Your task to perform on an android device: toggle pop-ups in chrome Image 0: 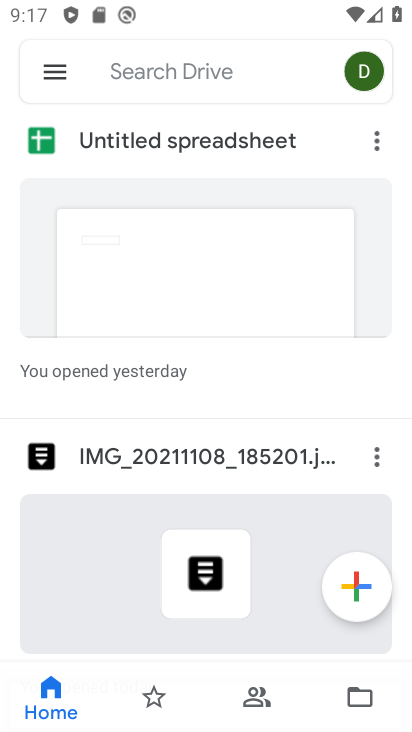
Step 0: press home button
Your task to perform on an android device: toggle pop-ups in chrome Image 1: 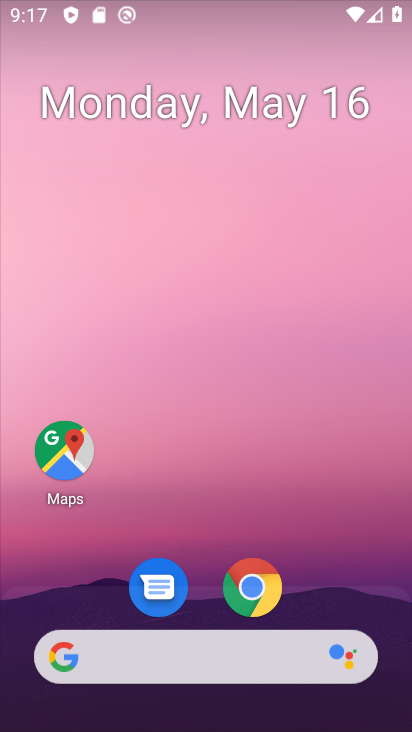
Step 1: click (262, 609)
Your task to perform on an android device: toggle pop-ups in chrome Image 2: 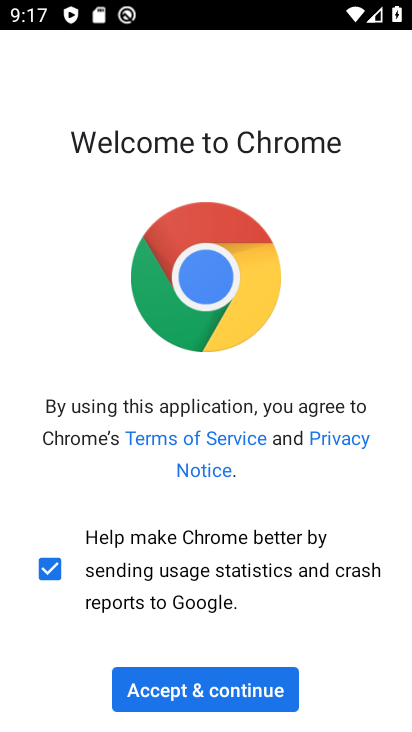
Step 2: click (208, 689)
Your task to perform on an android device: toggle pop-ups in chrome Image 3: 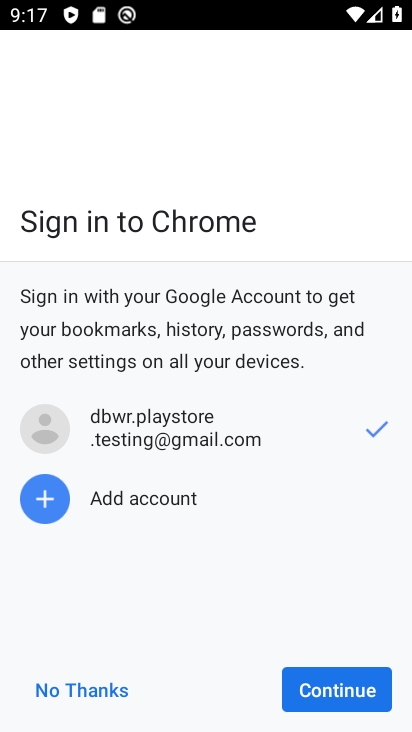
Step 3: click (303, 700)
Your task to perform on an android device: toggle pop-ups in chrome Image 4: 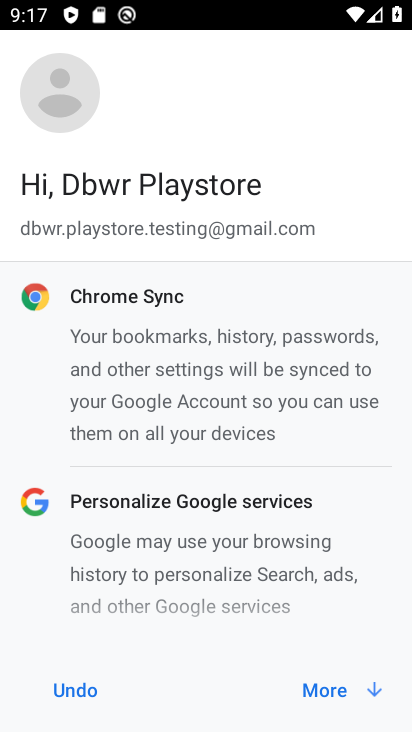
Step 4: click (331, 704)
Your task to perform on an android device: toggle pop-ups in chrome Image 5: 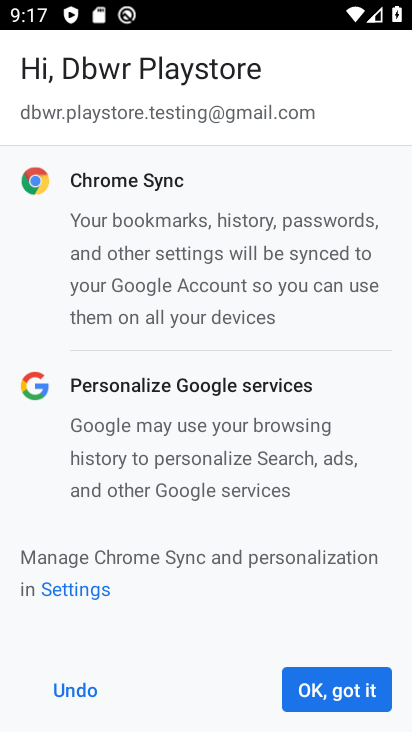
Step 5: click (325, 685)
Your task to perform on an android device: toggle pop-ups in chrome Image 6: 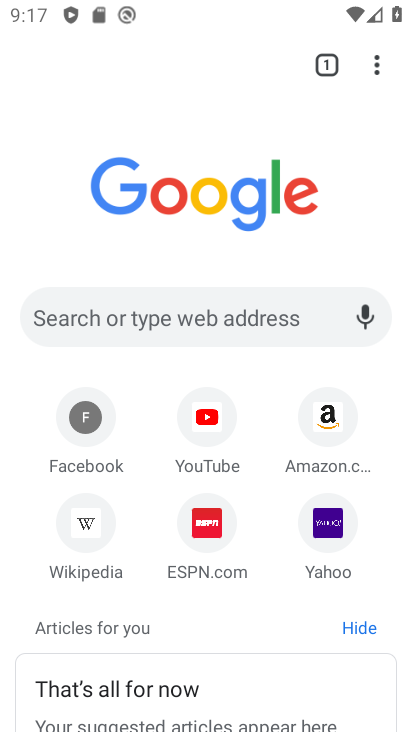
Step 6: drag from (373, 67) to (257, 548)
Your task to perform on an android device: toggle pop-ups in chrome Image 7: 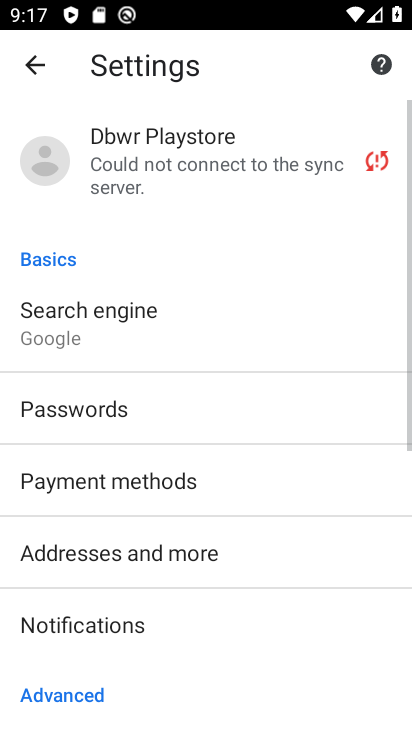
Step 7: drag from (156, 665) to (134, 241)
Your task to perform on an android device: toggle pop-ups in chrome Image 8: 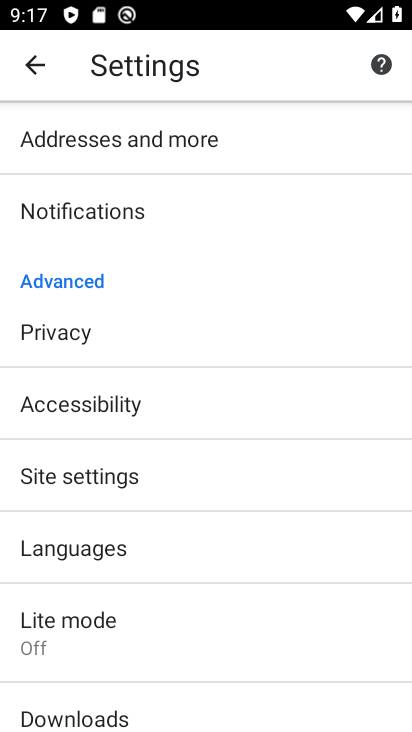
Step 8: click (128, 478)
Your task to perform on an android device: toggle pop-ups in chrome Image 9: 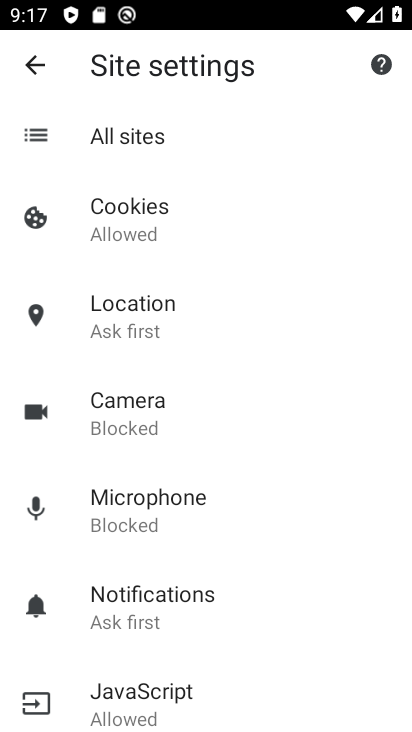
Step 9: drag from (203, 647) to (186, 368)
Your task to perform on an android device: toggle pop-ups in chrome Image 10: 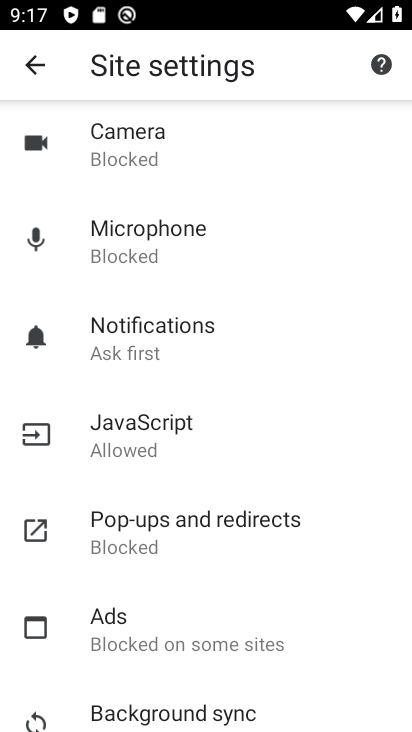
Step 10: click (181, 528)
Your task to perform on an android device: toggle pop-ups in chrome Image 11: 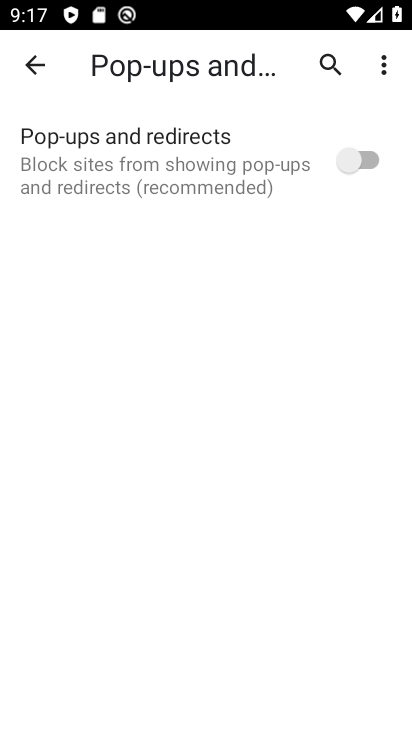
Step 11: click (353, 166)
Your task to perform on an android device: toggle pop-ups in chrome Image 12: 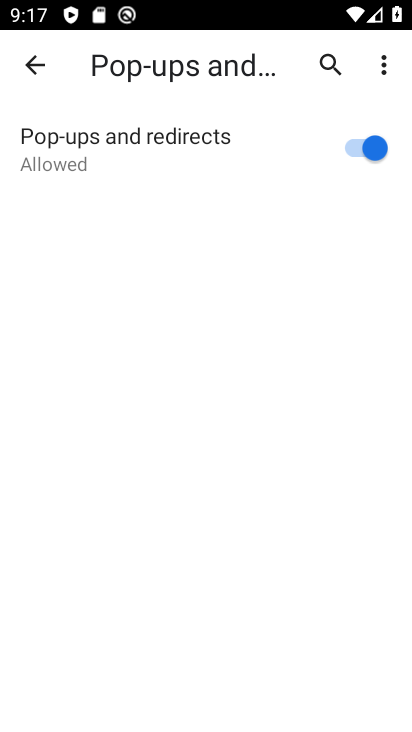
Step 12: task complete